Your task to perform on an android device: Show me the alarms in the clock app Image 0: 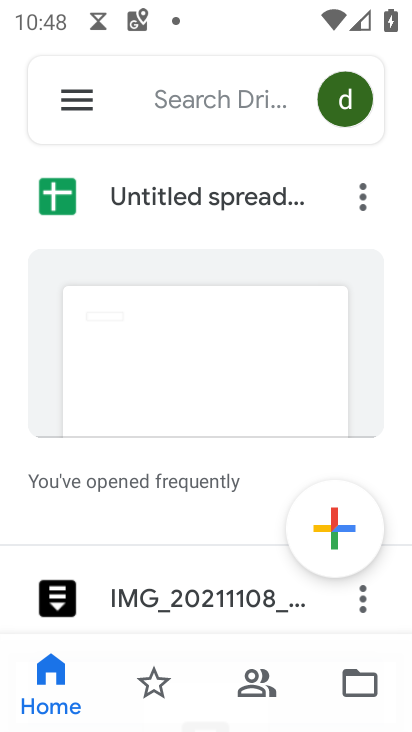
Step 0: press home button
Your task to perform on an android device: Show me the alarms in the clock app Image 1: 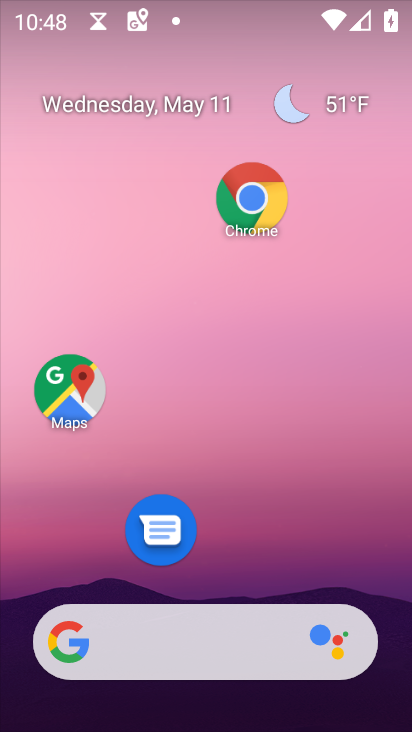
Step 1: drag from (257, 570) to (263, 170)
Your task to perform on an android device: Show me the alarms in the clock app Image 2: 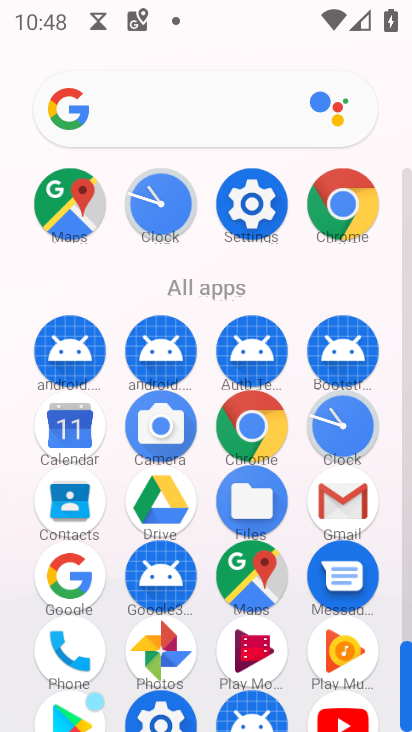
Step 2: click (352, 424)
Your task to perform on an android device: Show me the alarms in the clock app Image 3: 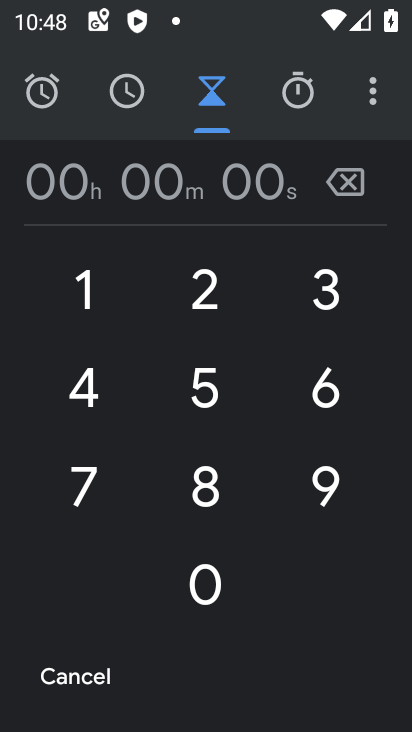
Step 3: click (52, 104)
Your task to perform on an android device: Show me the alarms in the clock app Image 4: 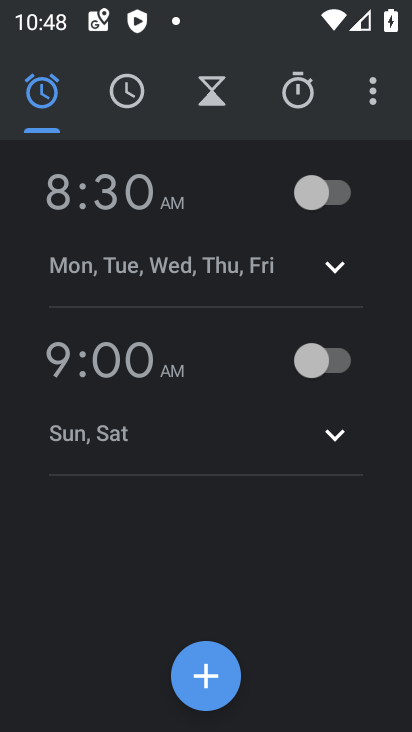
Step 4: task complete